Your task to perform on an android device: Open Google Chrome and click the shortcut for Amazon.com Image 0: 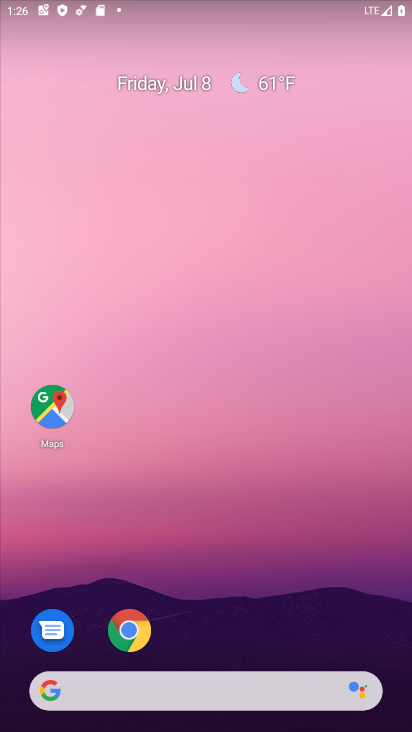
Step 0: drag from (381, 637) to (271, 349)
Your task to perform on an android device: Open Google Chrome and click the shortcut for Amazon.com Image 1: 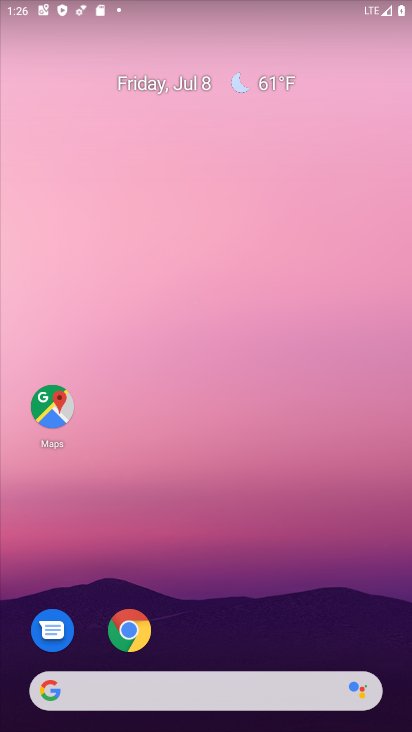
Step 1: drag from (395, 660) to (274, 77)
Your task to perform on an android device: Open Google Chrome and click the shortcut for Amazon.com Image 2: 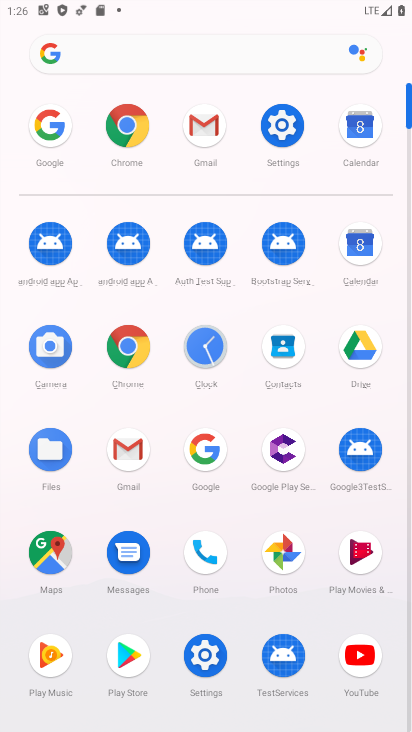
Step 2: click (128, 350)
Your task to perform on an android device: Open Google Chrome and click the shortcut for Amazon.com Image 3: 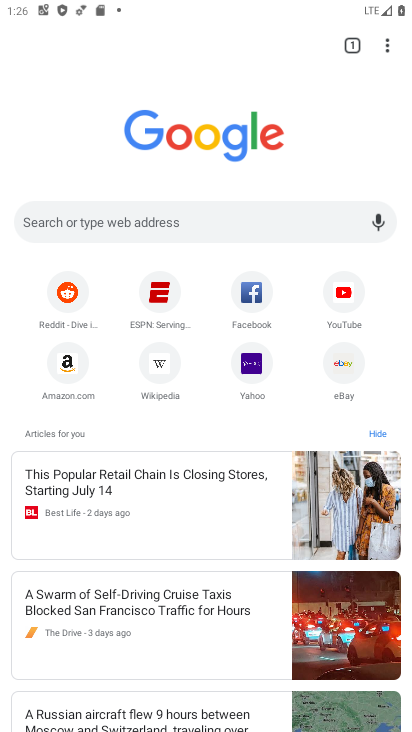
Step 3: click (73, 374)
Your task to perform on an android device: Open Google Chrome and click the shortcut for Amazon.com Image 4: 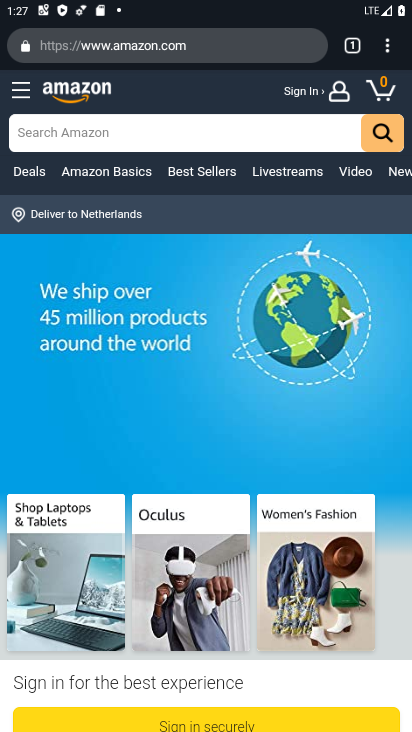
Step 4: task complete